Your task to perform on an android device: turn on translation in the chrome app Image 0: 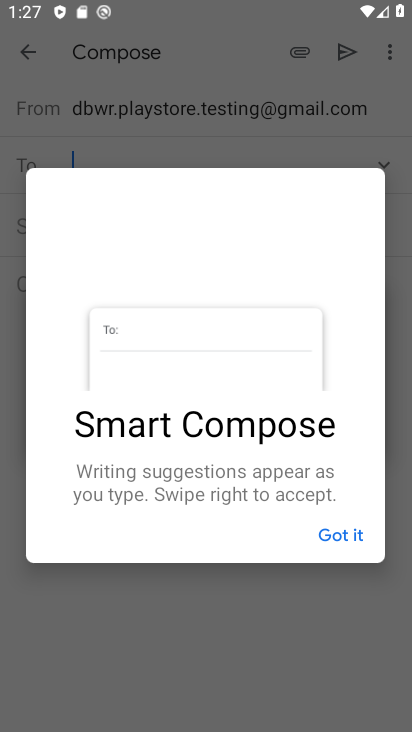
Step 0: press home button
Your task to perform on an android device: turn on translation in the chrome app Image 1: 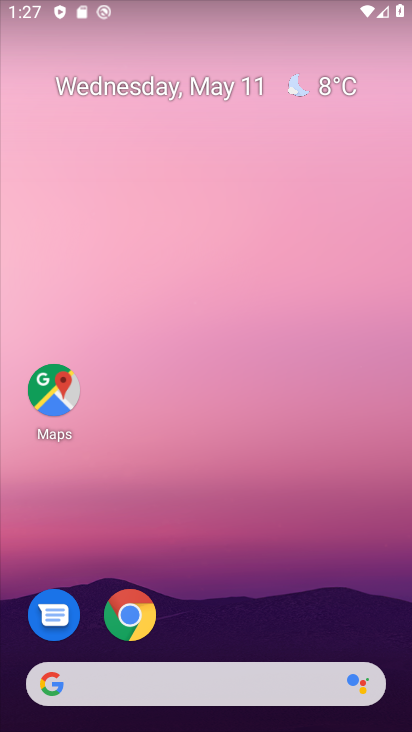
Step 1: drag from (369, 595) to (320, 249)
Your task to perform on an android device: turn on translation in the chrome app Image 2: 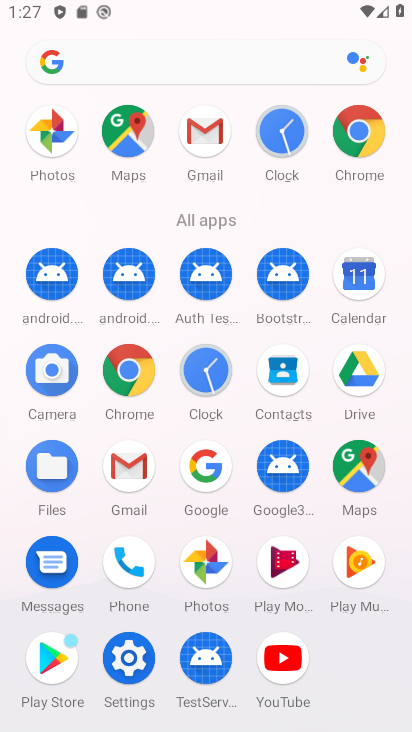
Step 2: click (127, 379)
Your task to perform on an android device: turn on translation in the chrome app Image 3: 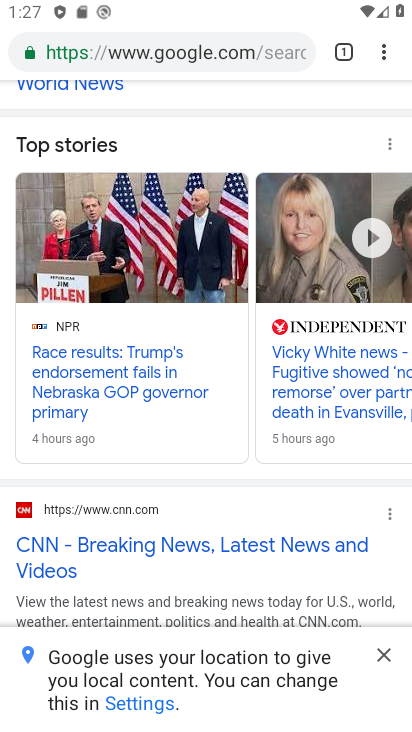
Step 3: drag from (395, 51) to (327, 583)
Your task to perform on an android device: turn on translation in the chrome app Image 4: 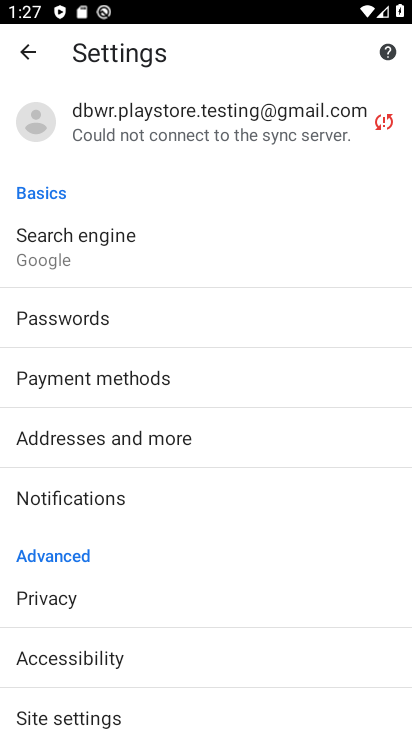
Step 4: drag from (259, 646) to (290, 290)
Your task to perform on an android device: turn on translation in the chrome app Image 5: 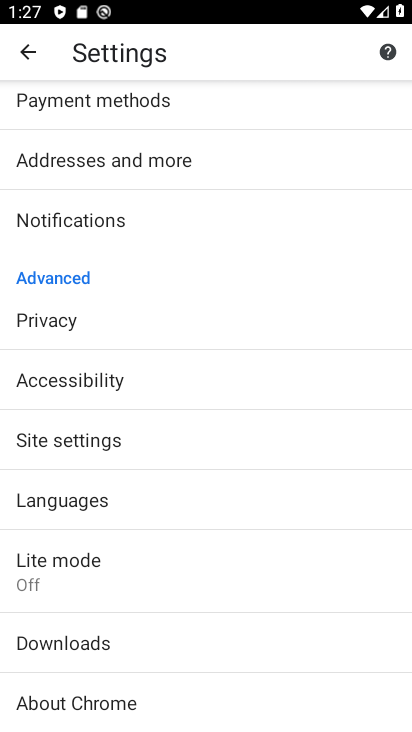
Step 5: click (131, 485)
Your task to perform on an android device: turn on translation in the chrome app Image 6: 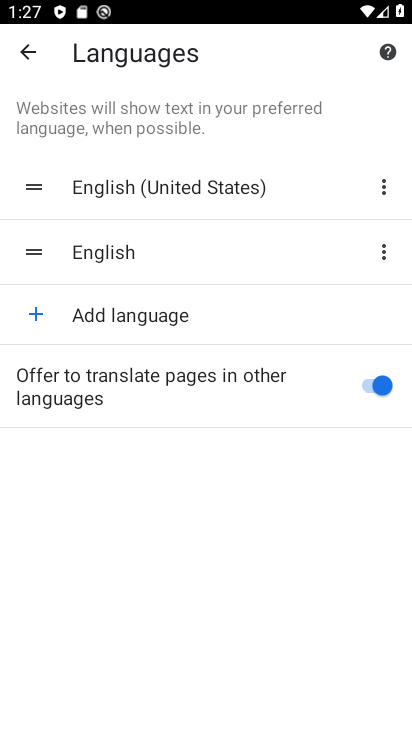
Step 6: task complete